Your task to perform on an android device: add a label to a message in the gmail app Image 0: 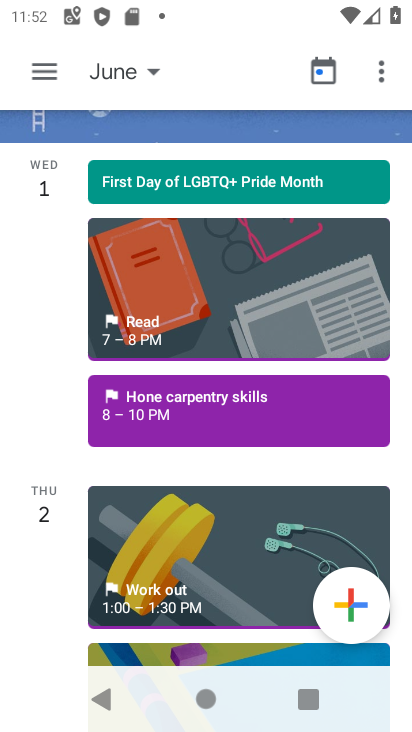
Step 0: press home button
Your task to perform on an android device: add a label to a message in the gmail app Image 1: 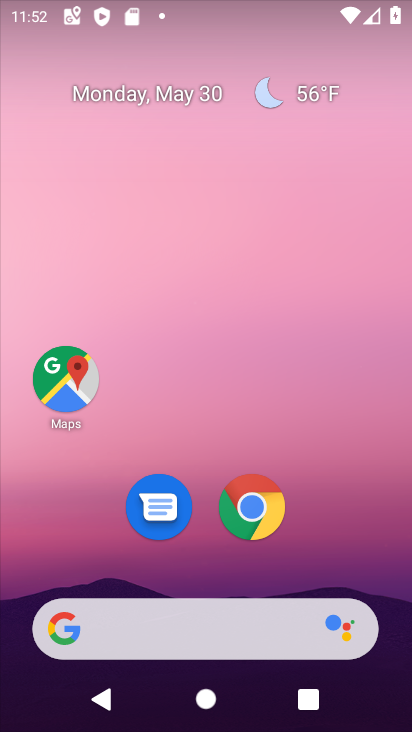
Step 1: drag from (350, 559) to (325, 188)
Your task to perform on an android device: add a label to a message in the gmail app Image 2: 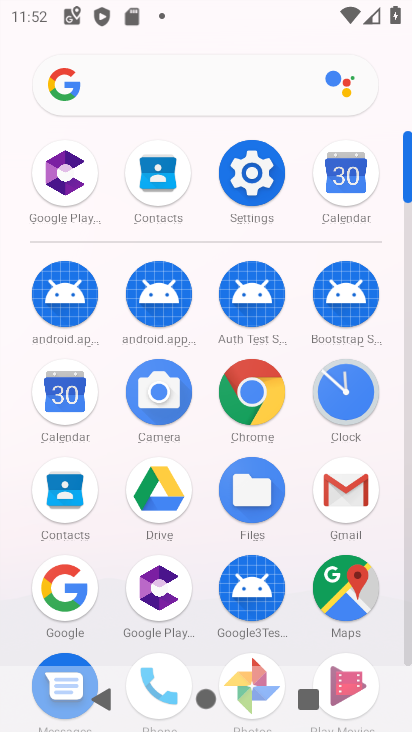
Step 2: click (355, 489)
Your task to perform on an android device: add a label to a message in the gmail app Image 3: 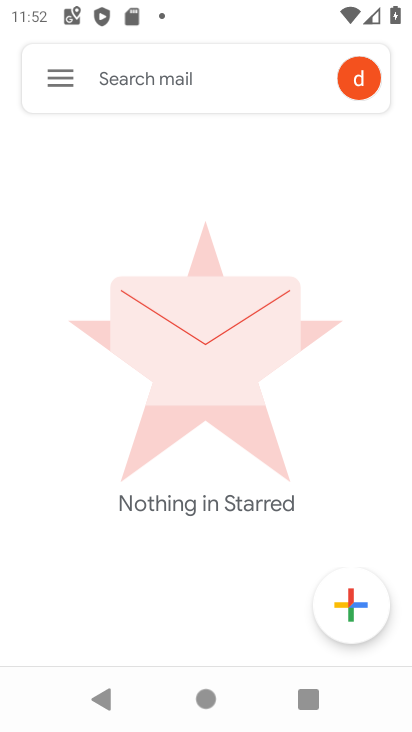
Step 3: task complete